Your task to perform on an android device: Show me popular videos on Youtube Image 0: 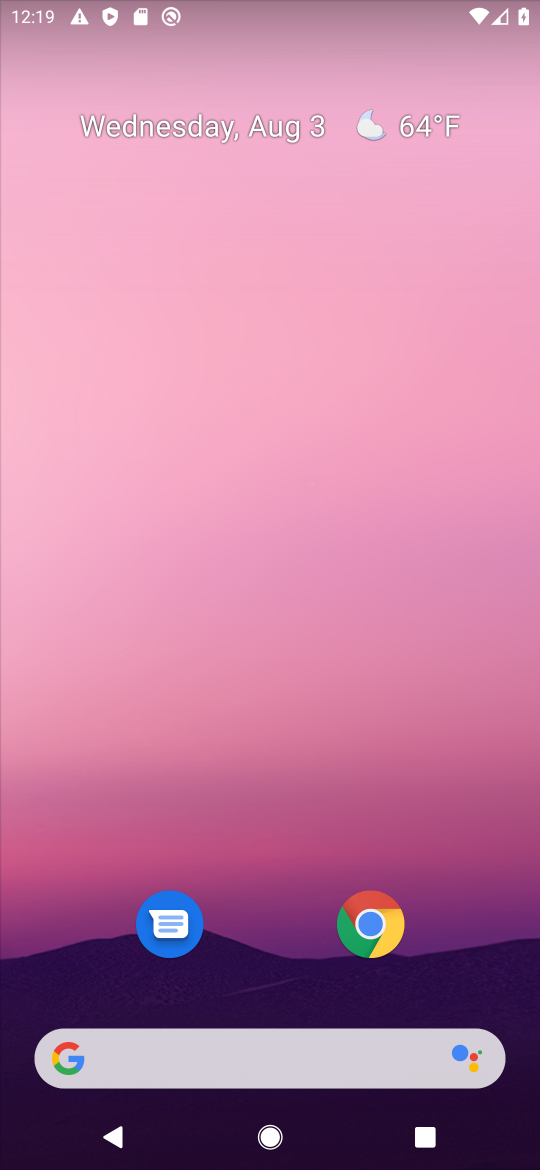
Step 0: drag from (262, 875) to (337, 5)
Your task to perform on an android device: Show me popular videos on Youtube Image 1: 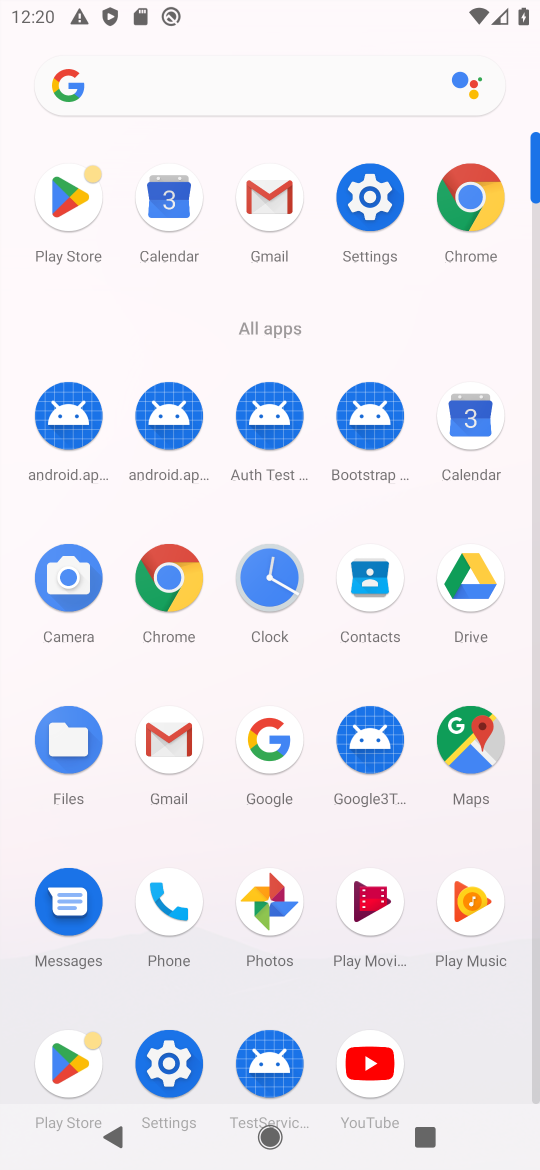
Step 1: click (368, 1070)
Your task to perform on an android device: Show me popular videos on Youtube Image 2: 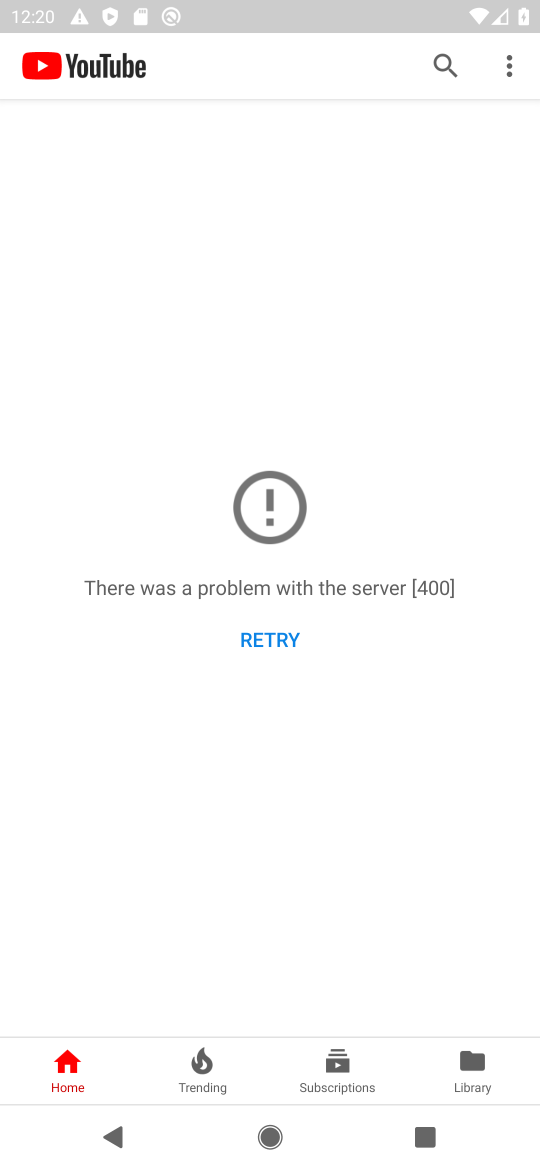
Step 2: task complete